Your task to perform on an android device: Open the phone app and click the voicemail tab. Image 0: 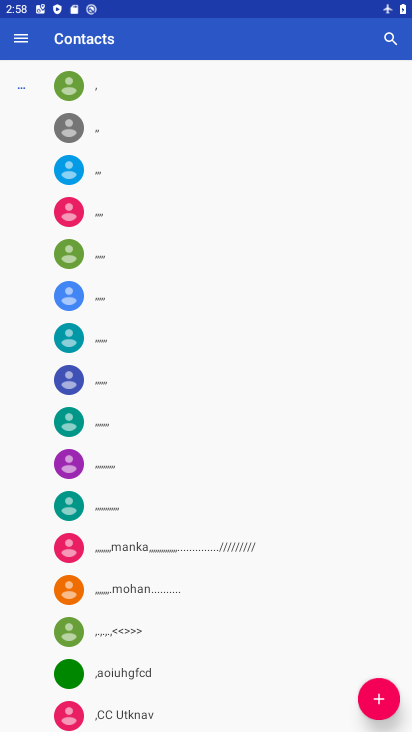
Step 0: press home button
Your task to perform on an android device: Open the phone app and click the voicemail tab. Image 1: 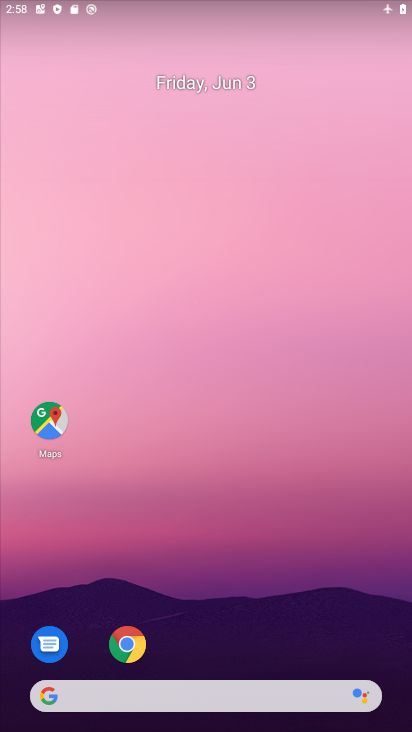
Step 1: drag from (243, 640) to (242, 185)
Your task to perform on an android device: Open the phone app and click the voicemail tab. Image 2: 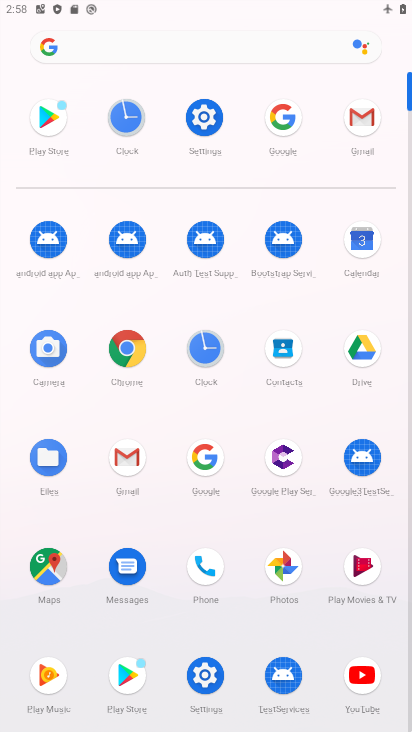
Step 2: click (198, 569)
Your task to perform on an android device: Open the phone app and click the voicemail tab. Image 3: 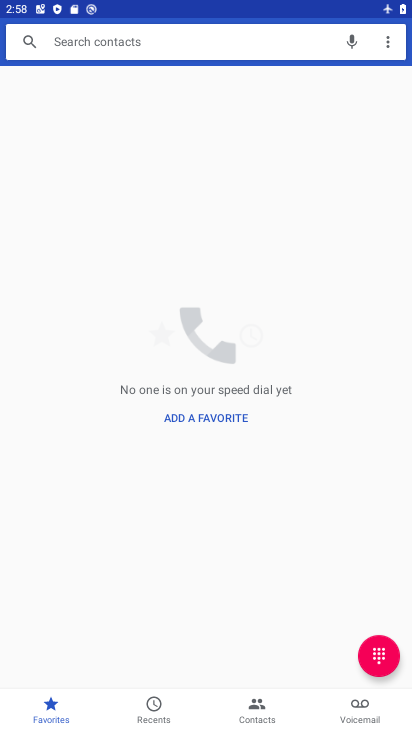
Step 3: click (334, 701)
Your task to perform on an android device: Open the phone app and click the voicemail tab. Image 4: 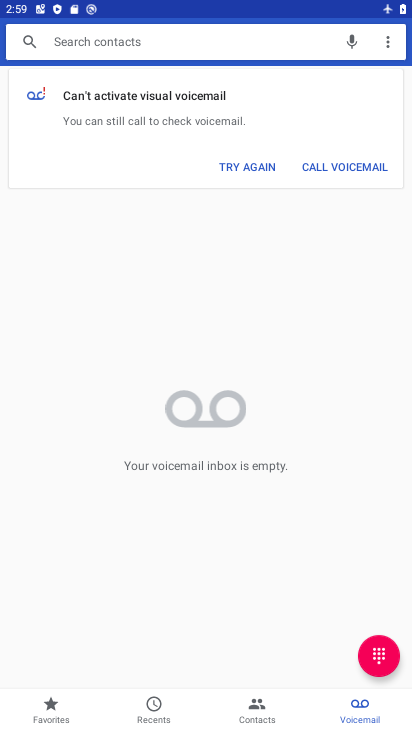
Step 4: task complete